Your task to perform on an android device: Go to Android settings Image 0: 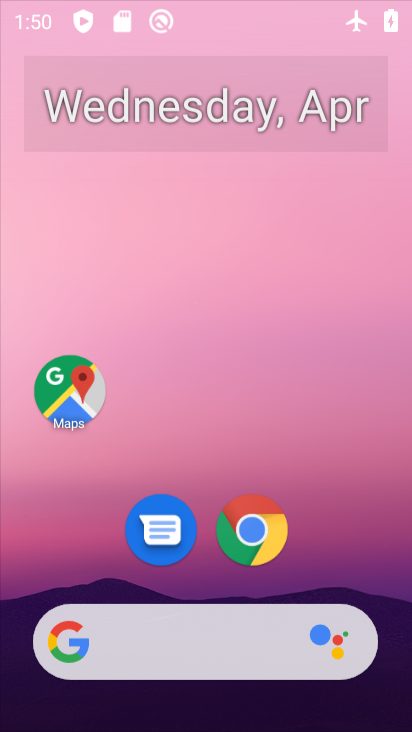
Step 0: drag from (327, 306) to (328, 133)
Your task to perform on an android device: Go to Android settings Image 1: 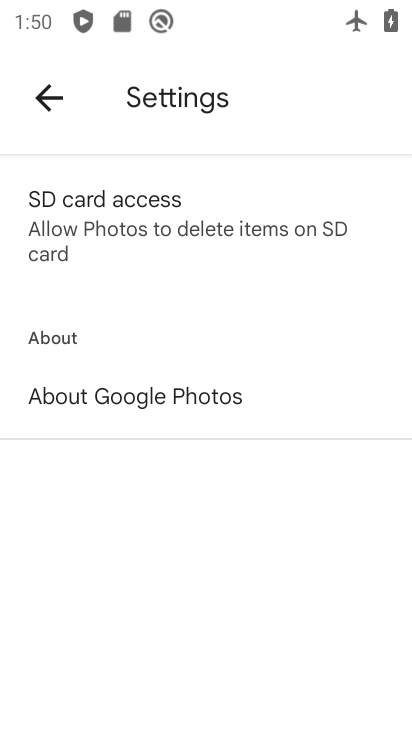
Step 1: press home button
Your task to perform on an android device: Go to Android settings Image 2: 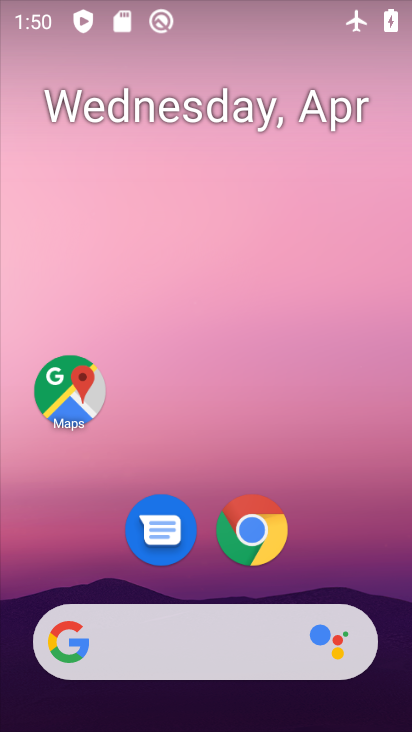
Step 2: drag from (330, 528) to (343, 141)
Your task to perform on an android device: Go to Android settings Image 3: 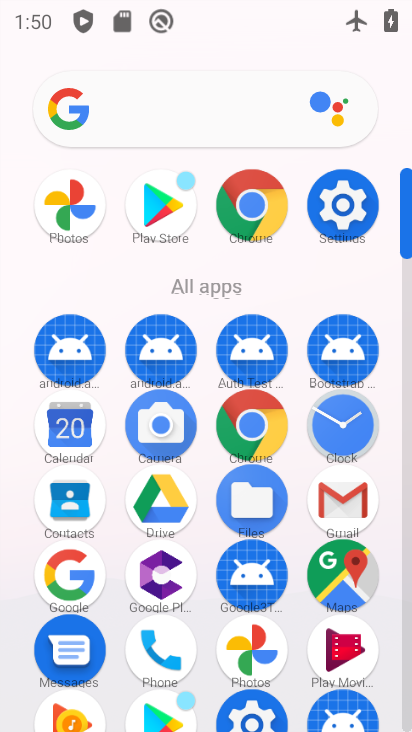
Step 3: drag from (299, 596) to (312, 233)
Your task to perform on an android device: Go to Android settings Image 4: 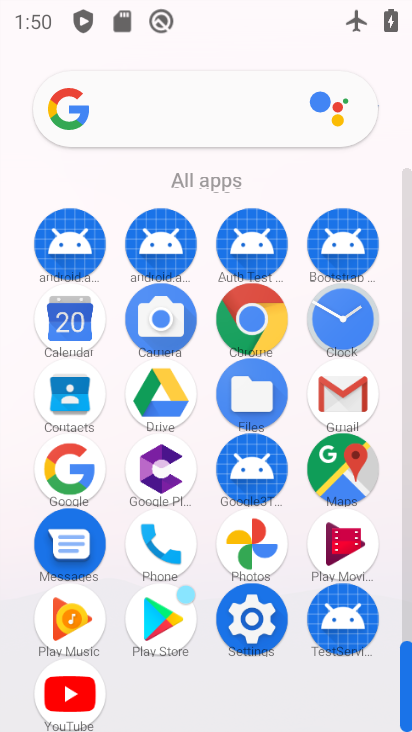
Step 4: click (253, 615)
Your task to perform on an android device: Go to Android settings Image 5: 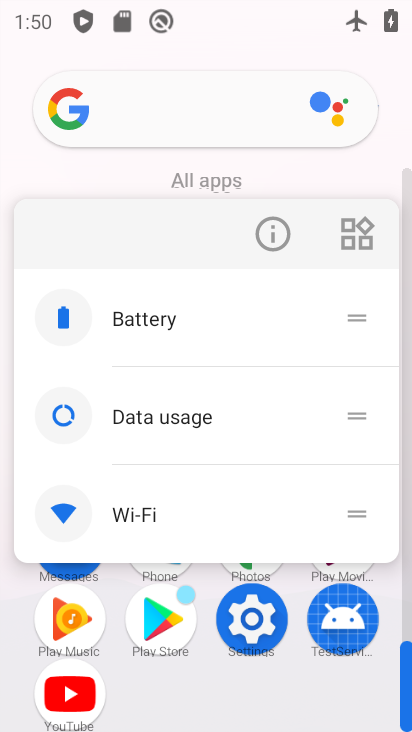
Step 5: click (258, 623)
Your task to perform on an android device: Go to Android settings Image 6: 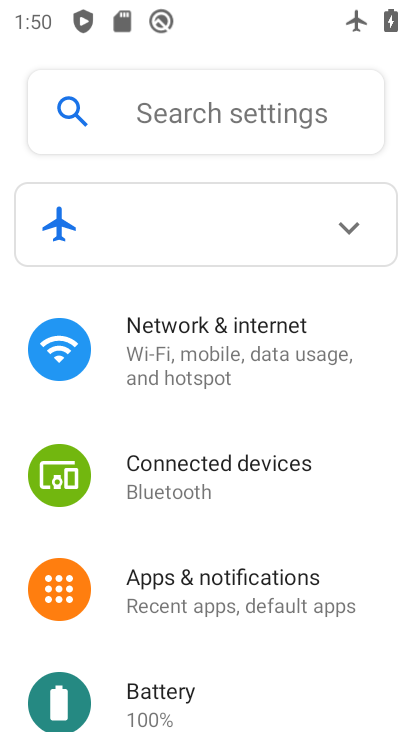
Step 6: task complete